Your task to perform on an android device: clear all cookies in the chrome app Image 0: 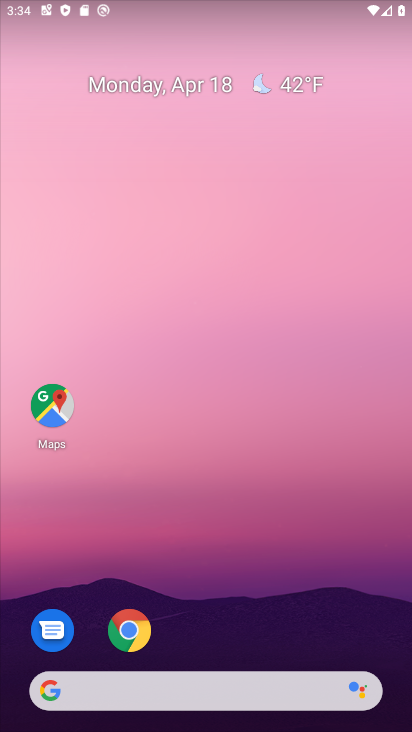
Step 0: click (132, 630)
Your task to perform on an android device: clear all cookies in the chrome app Image 1: 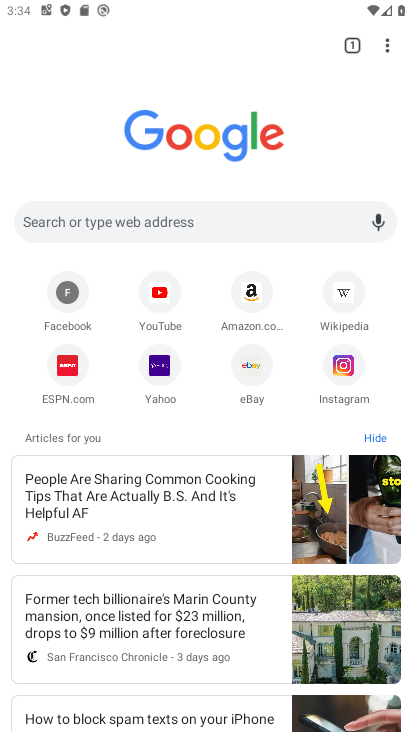
Step 1: click (390, 44)
Your task to perform on an android device: clear all cookies in the chrome app Image 2: 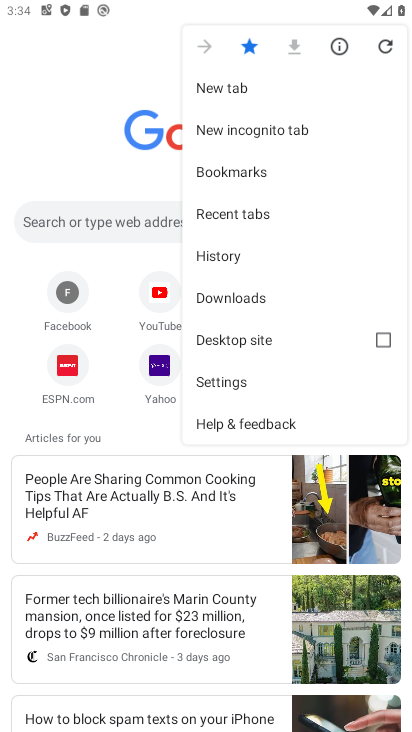
Step 2: click (234, 372)
Your task to perform on an android device: clear all cookies in the chrome app Image 3: 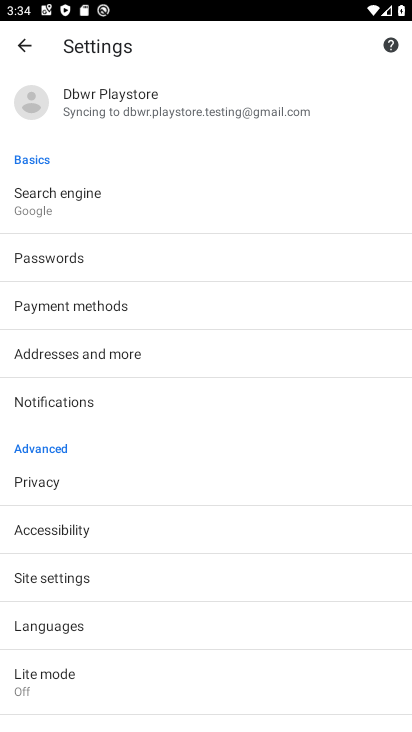
Step 3: click (39, 487)
Your task to perform on an android device: clear all cookies in the chrome app Image 4: 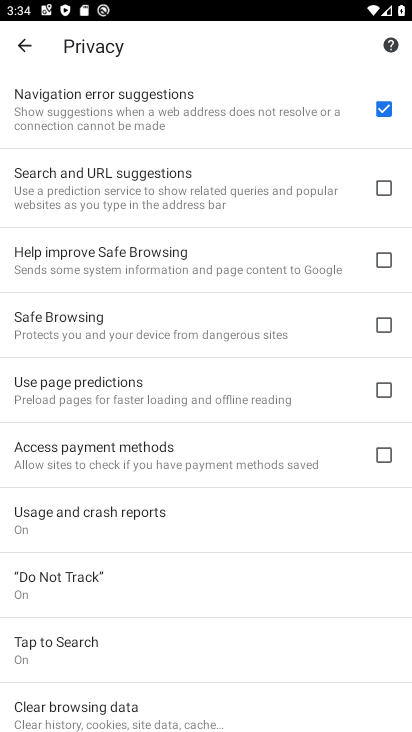
Step 4: drag from (170, 636) to (136, 333)
Your task to perform on an android device: clear all cookies in the chrome app Image 5: 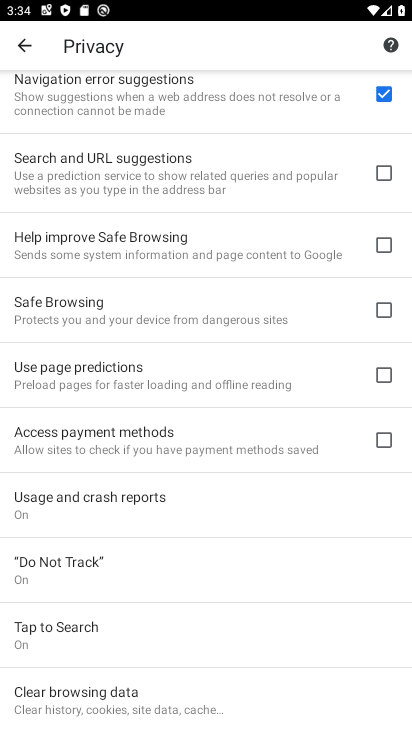
Step 5: click (110, 711)
Your task to perform on an android device: clear all cookies in the chrome app Image 6: 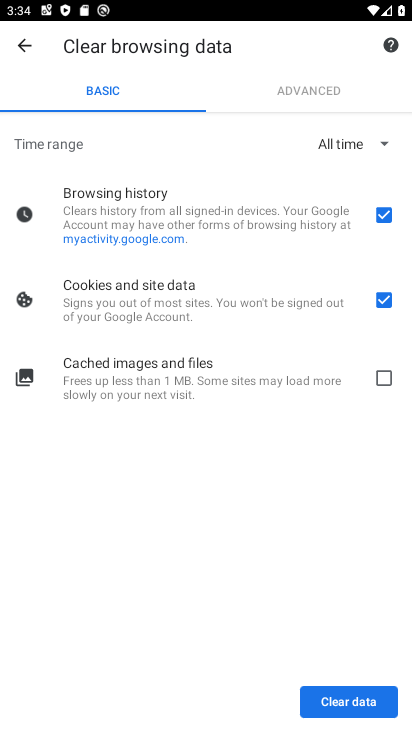
Step 6: click (388, 222)
Your task to perform on an android device: clear all cookies in the chrome app Image 7: 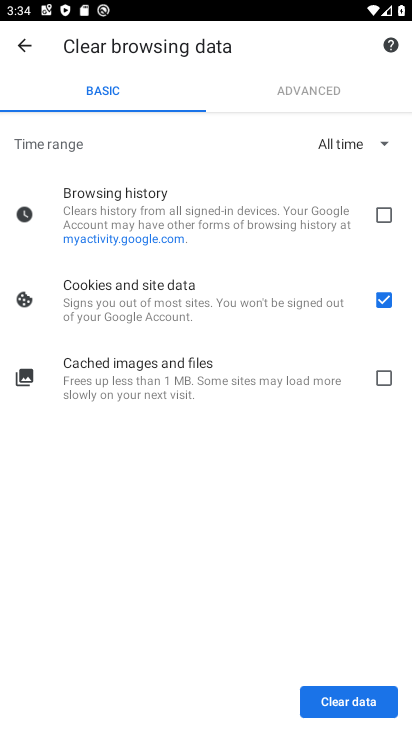
Step 7: click (355, 693)
Your task to perform on an android device: clear all cookies in the chrome app Image 8: 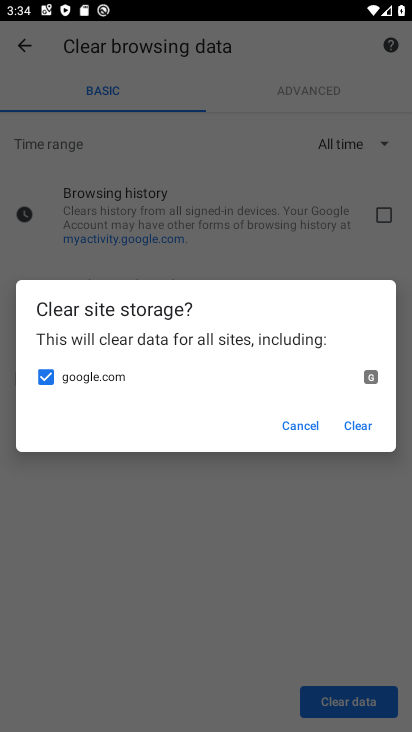
Step 8: click (363, 422)
Your task to perform on an android device: clear all cookies in the chrome app Image 9: 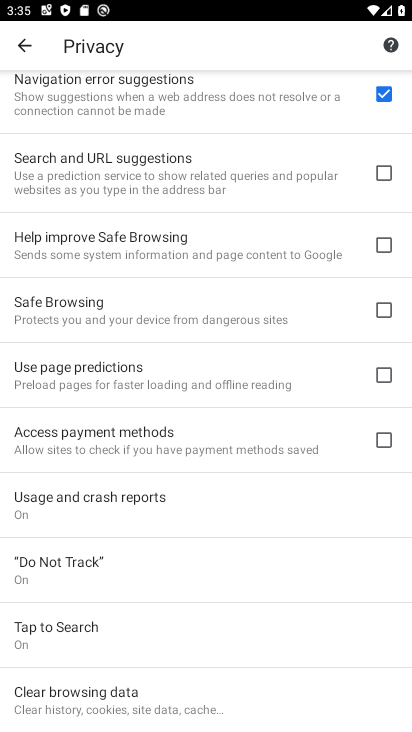
Step 9: task complete